Your task to perform on an android device: Open the phone app and click the voicemail tab. Image 0: 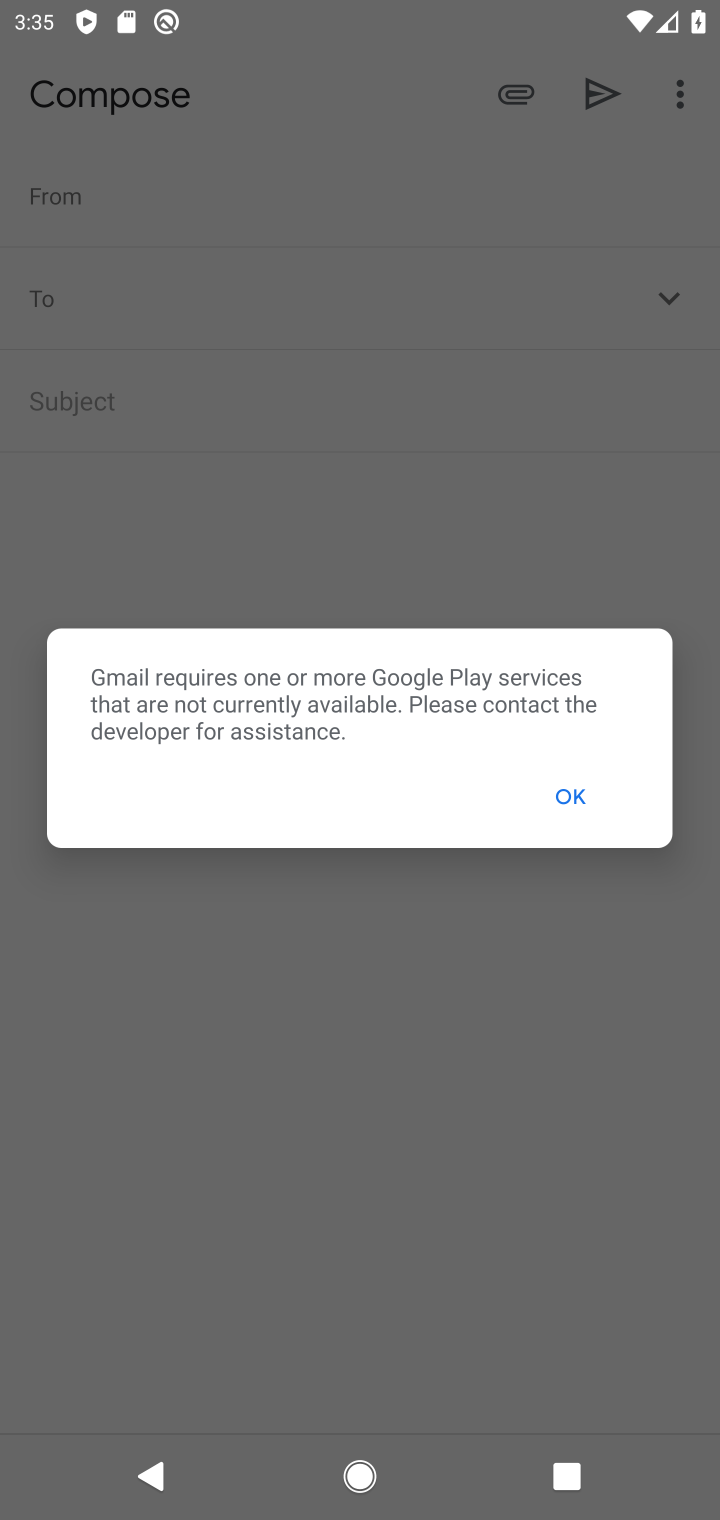
Step 0: press home button
Your task to perform on an android device: Open the phone app and click the voicemail tab. Image 1: 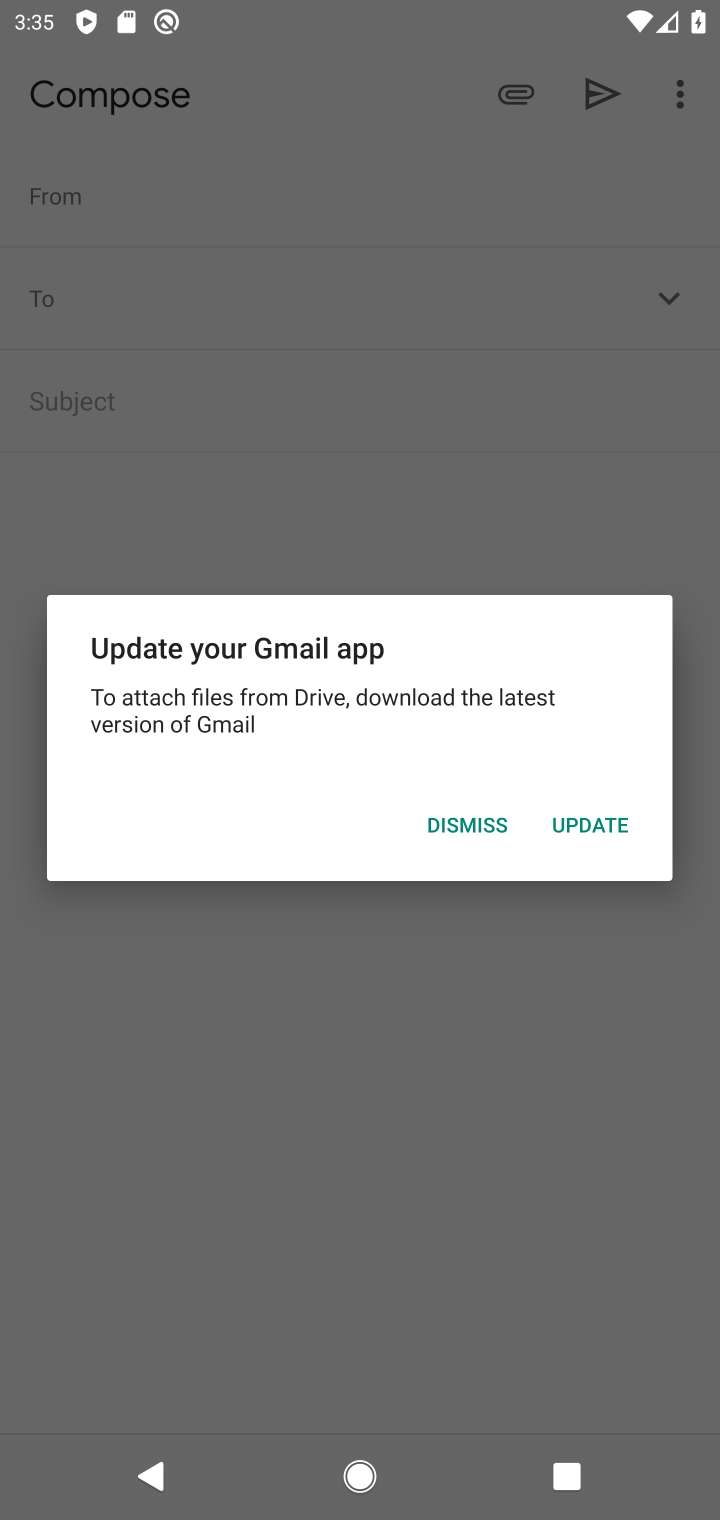
Step 1: click (573, 793)
Your task to perform on an android device: Open the phone app and click the voicemail tab. Image 2: 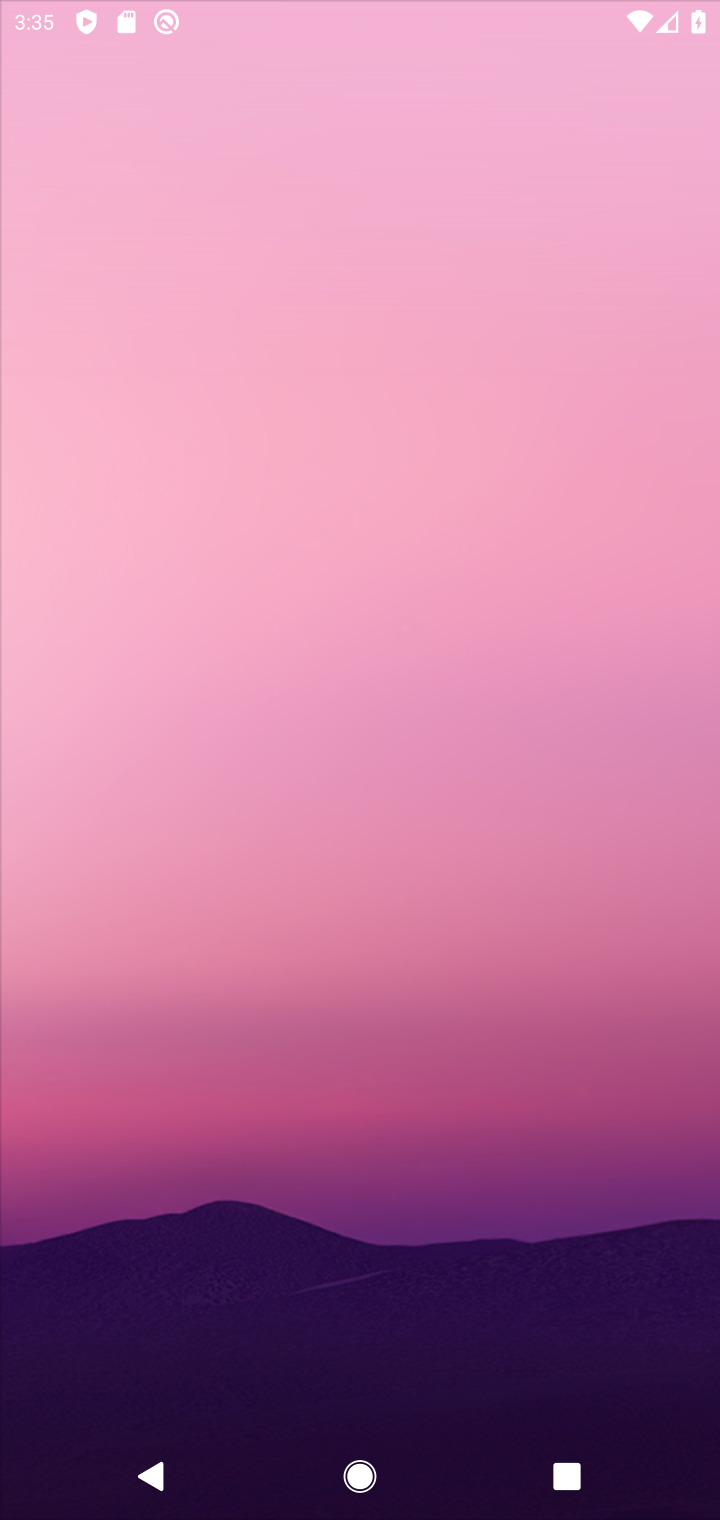
Step 2: press home button
Your task to perform on an android device: Open the phone app and click the voicemail tab. Image 3: 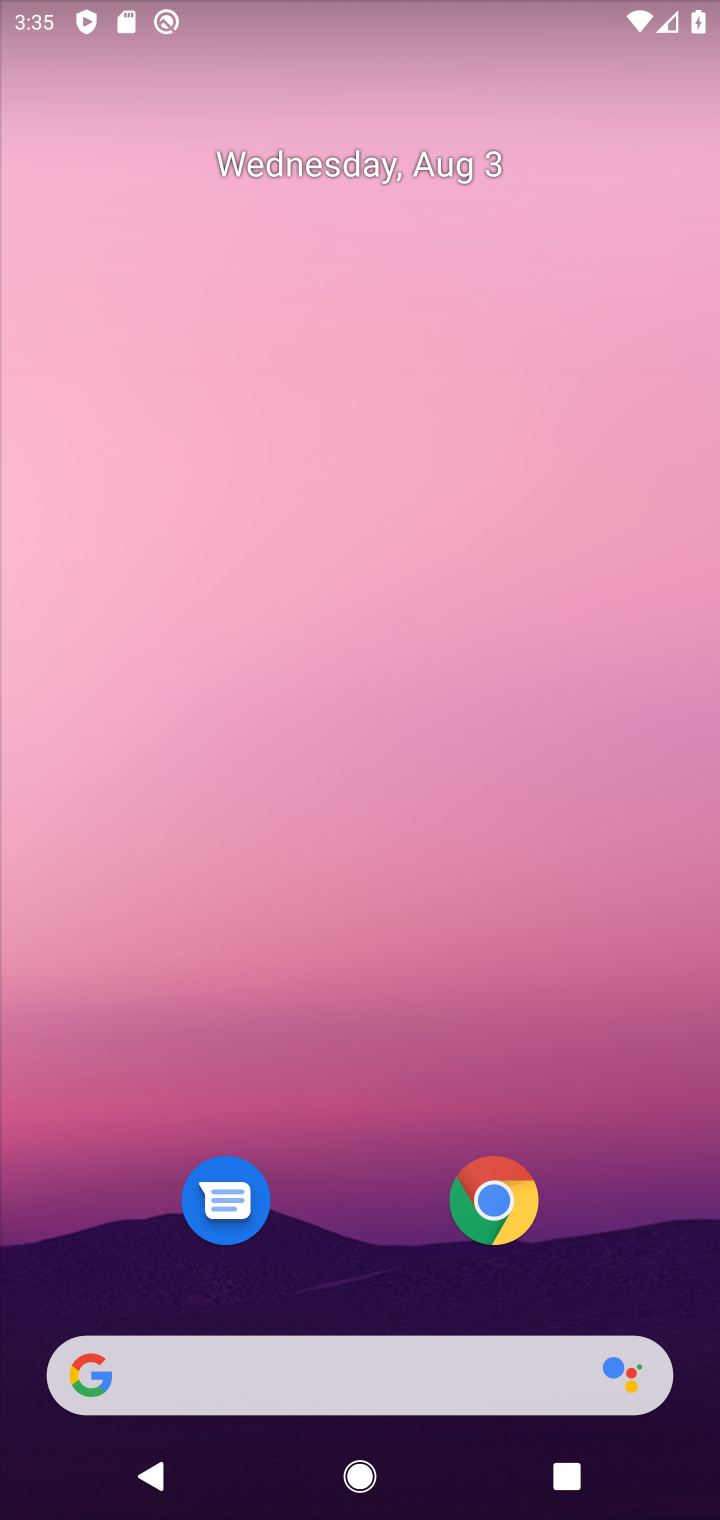
Step 3: drag from (323, 997) to (338, 30)
Your task to perform on an android device: Open the phone app and click the voicemail tab. Image 4: 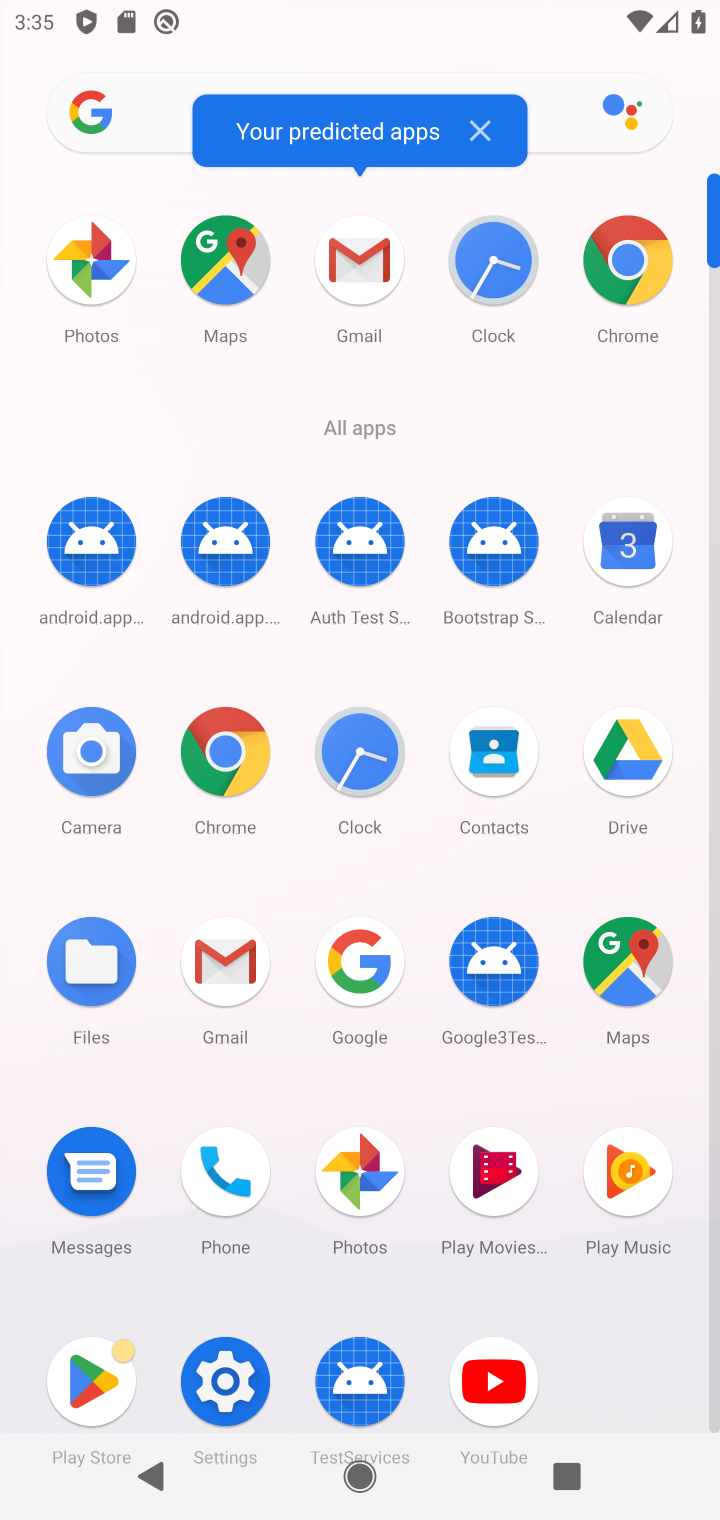
Step 4: click (222, 1200)
Your task to perform on an android device: Open the phone app and click the voicemail tab. Image 5: 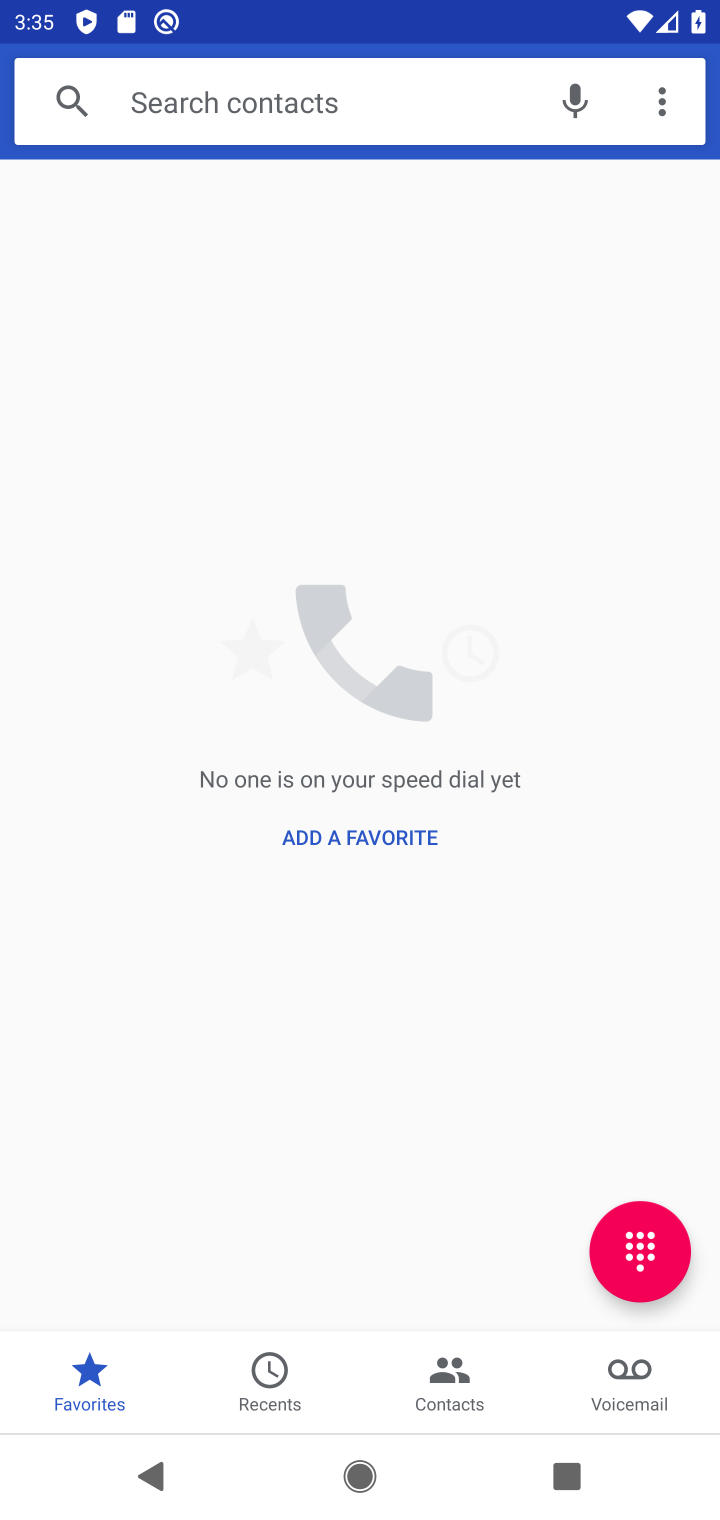
Step 5: click (644, 1382)
Your task to perform on an android device: Open the phone app and click the voicemail tab. Image 6: 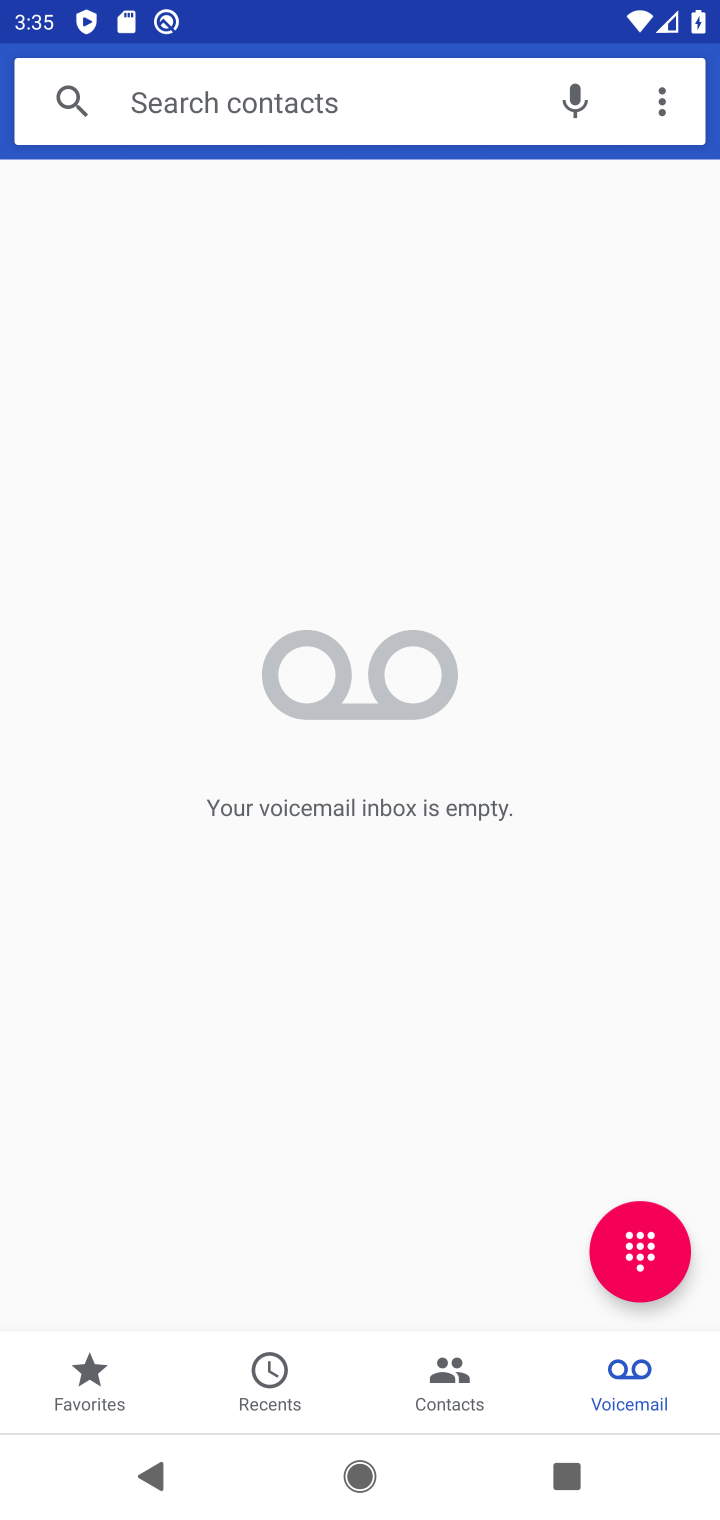
Step 6: task complete